Your task to perform on an android device: add a contact Image 0: 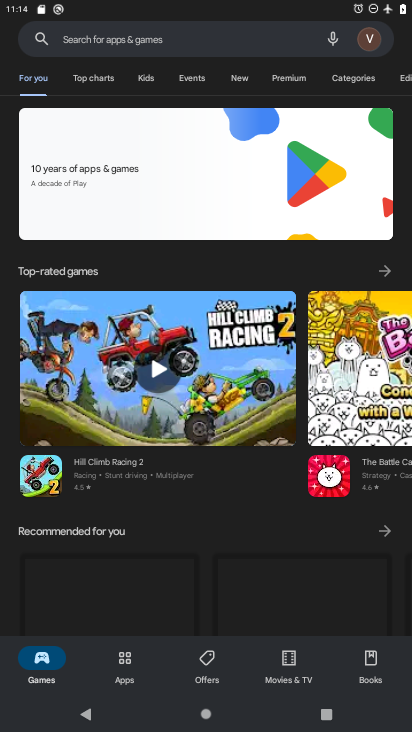
Step 0: press home button
Your task to perform on an android device: add a contact Image 1: 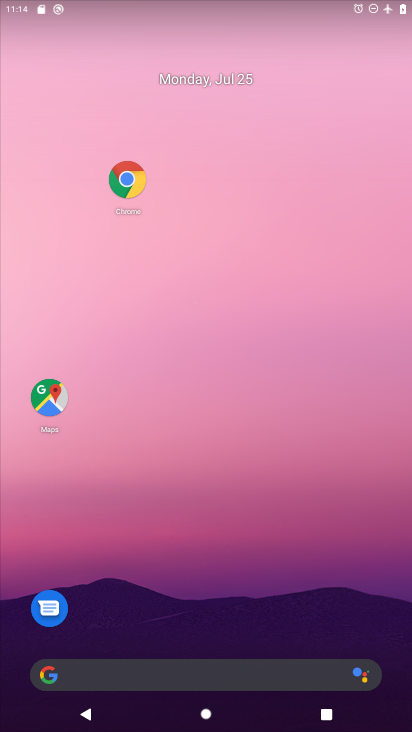
Step 1: drag from (147, 698) to (319, 16)
Your task to perform on an android device: add a contact Image 2: 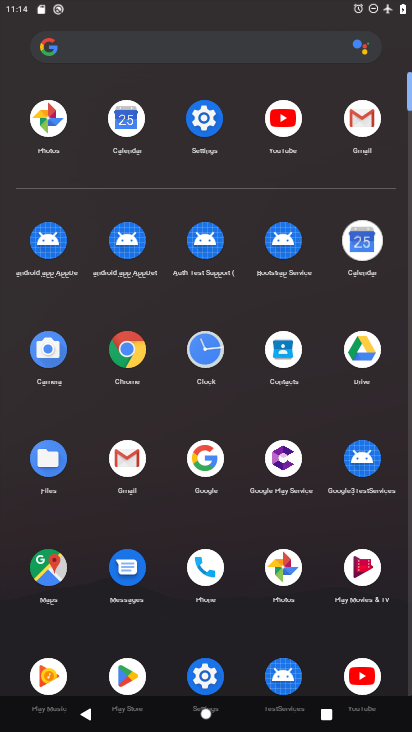
Step 2: click (286, 362)
Your task to perform on an android device: add a contact Image 3: 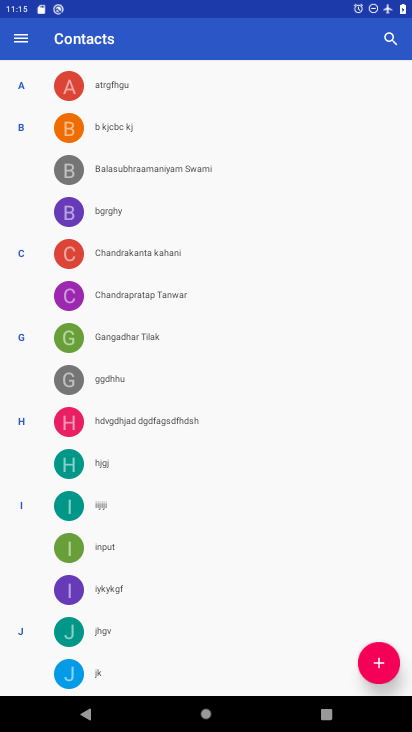
Step 3: click (366, 674)
Your task to perform on an android device: add a contact Image 4: 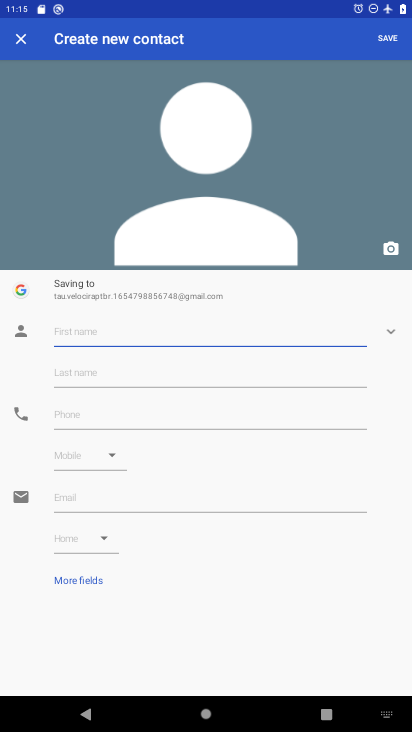
Step 4: type "hgchg"
Your task to perform on an android device: add a contact Image 5: 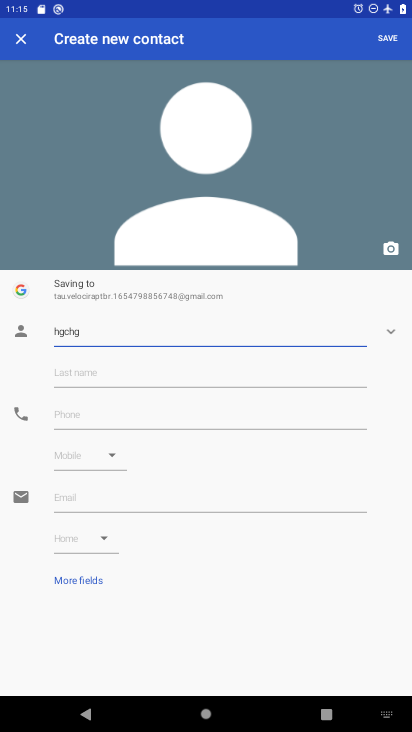
Step 5: click (85, 398)
Your task to perform on an android device: add a contact Image 6: 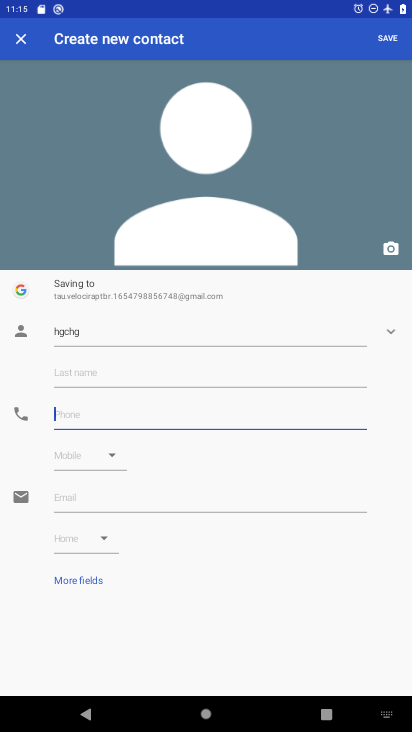
Step 6: click (88, 420)
Your task to perform on an android device: add a contact Image 7: 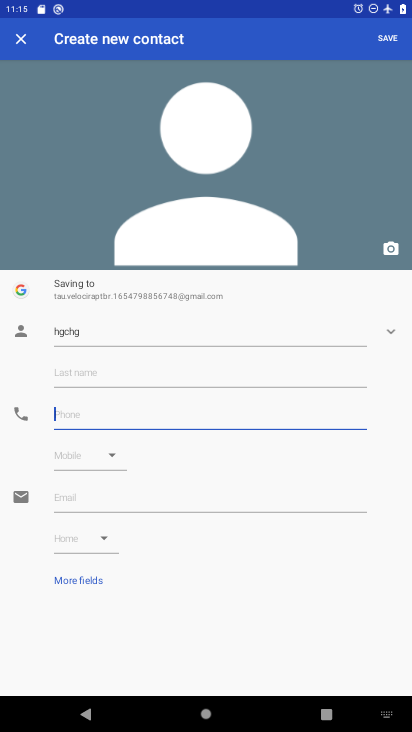
Step 7: type "543636"
Your task to perform on an android device: add a contact Image 8: 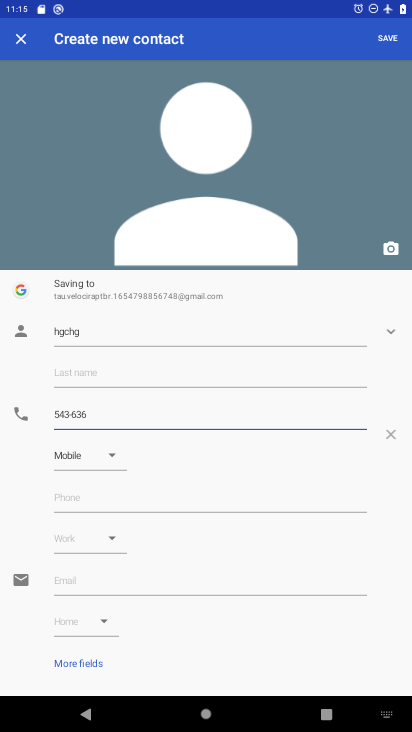
Step 8: click (377, 36)
Your task to perform on an android device: add a contact Image 9: 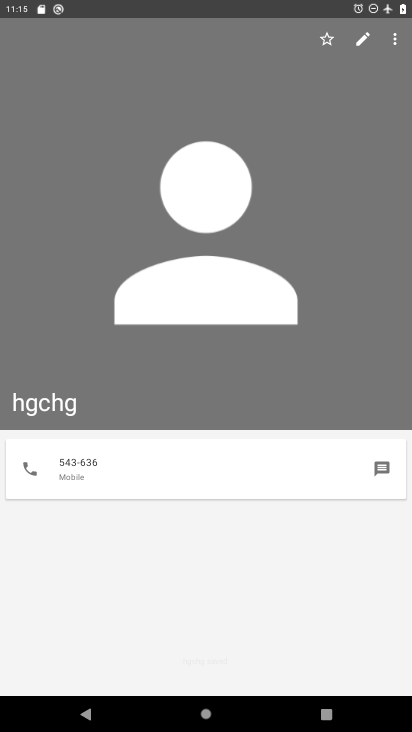
Step 9: task complete